Your task to perform on an android device: Is it going to rain today? Image 0: 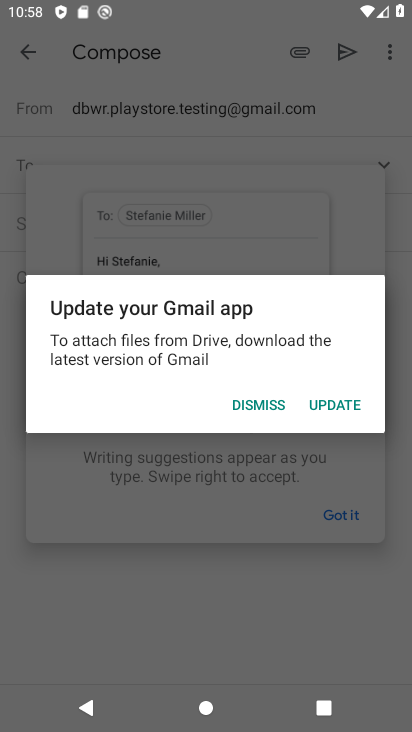
Step 0: click (260, 404)
Your task to perform on an android device: Is it going to rain today? Image 1: 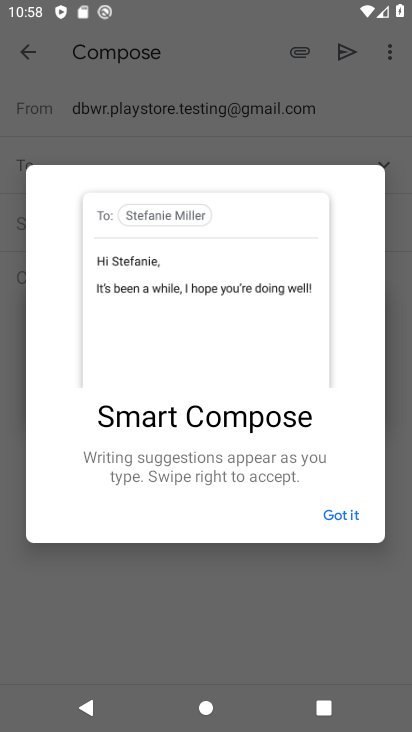
Step 1: press home button
Your task to perform on an android device: Is it going to rain today? Image 2: 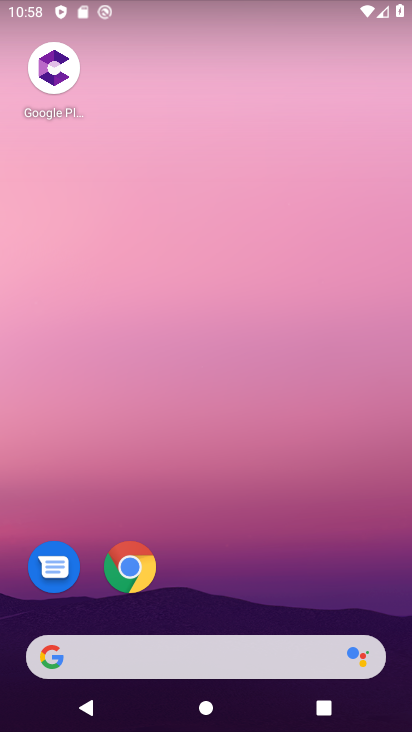
Step 2: click (192, 635)
Your task to perform on an android device: Is it going to rain today? Image 3: 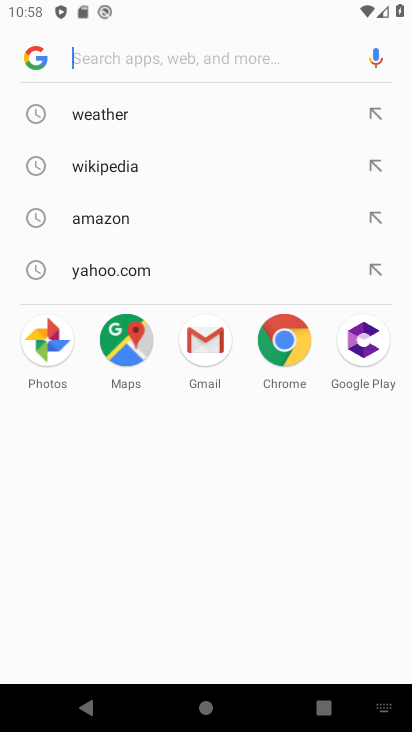
Step 3: click (85, 113)
Your task to perform on an android device: Is it going to rain today? Image 4: 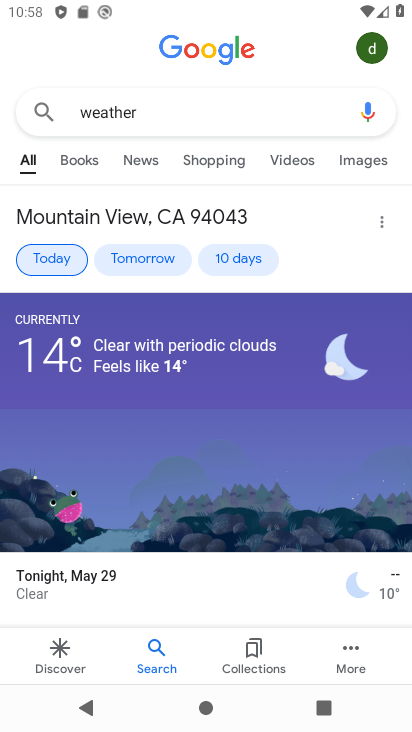
Step 4: click (59, 258)
Your task to perform on an android device: Is it going to rain today? Image 5: 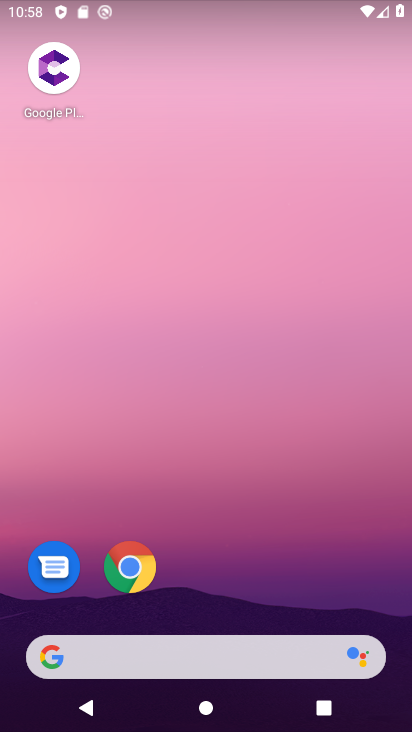
Step 5: click (222, 648)
Your task to perform on an android device: Is it going to rain today? Image 6: 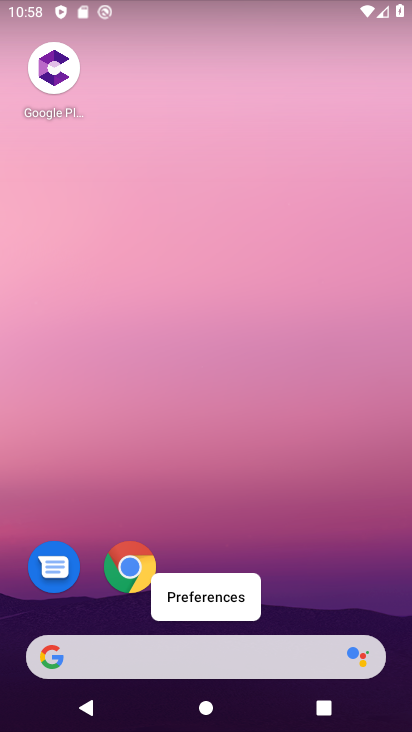
Step 6: click (200, 670)
Your task to perform on an android device: Is it going to rain today? Image 7: 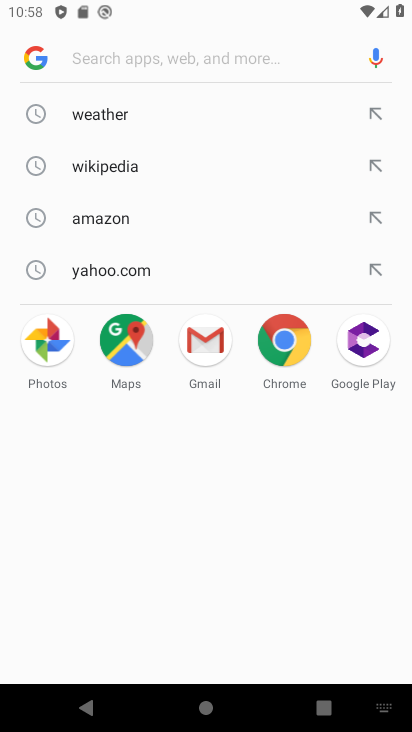
Step 7: click (108, 118)
Your task to perform on an android device: Is it going to rain today? Image 8: 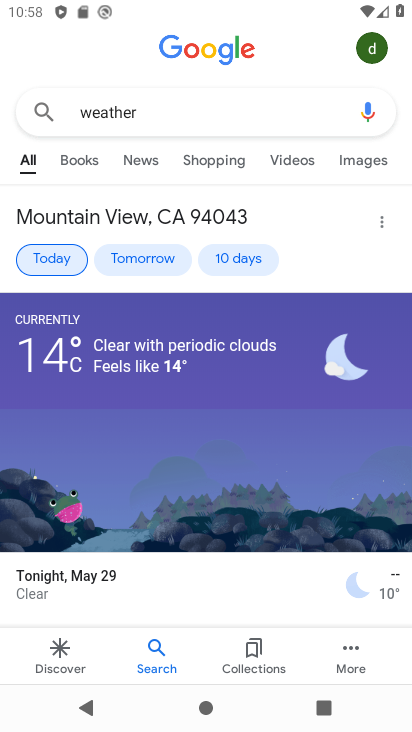
Step 8: click (45, 220)
Your task to perform on an android device: Is it going to rain today? Image 9: 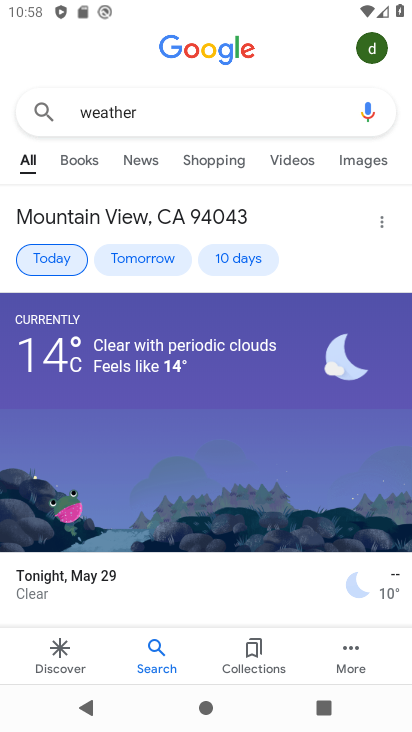
Step 9: click (54, 240)
Your task to perform on an android device: Is it going to rain today? Image 10: 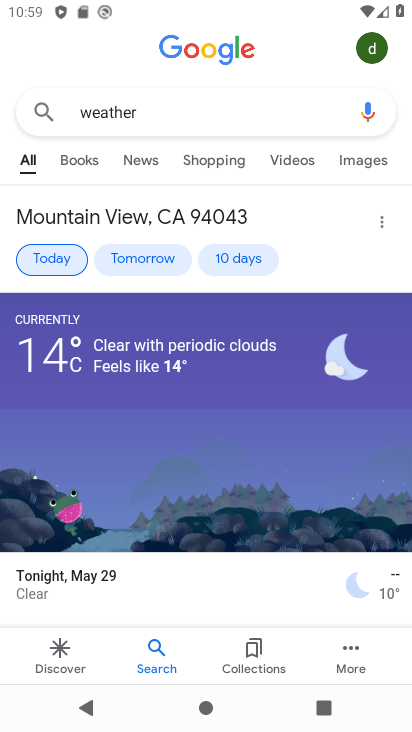
Step 10: task complete